Your task to perform on an android device: uninstall "NewsBreak: Local News & Alerts" Image 0: 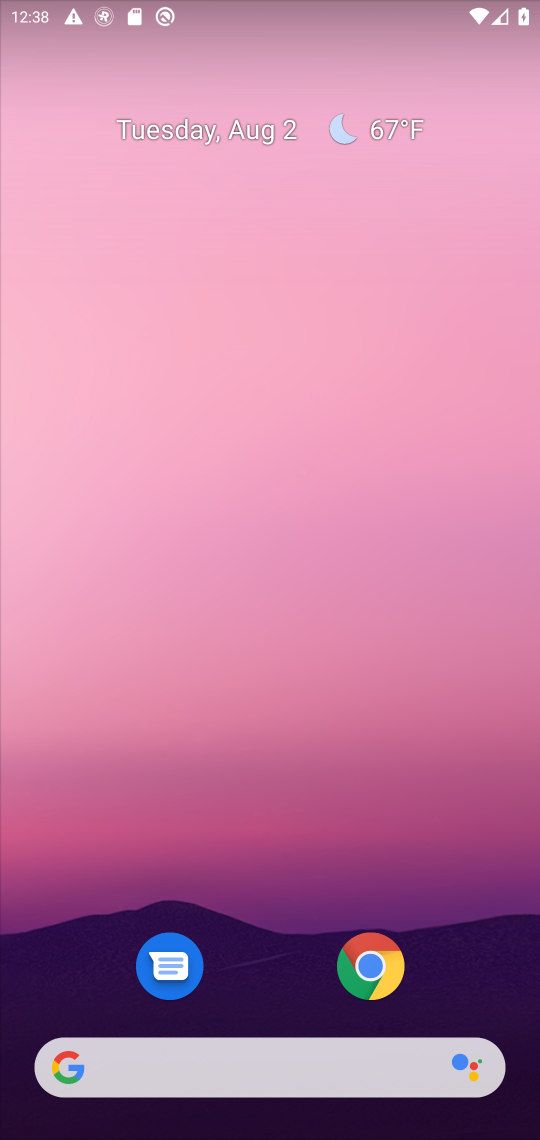
Step 0: press home button
Your task to perform on an android device: uninstall "NewsBreak: Local News & Alerts" Image 1: 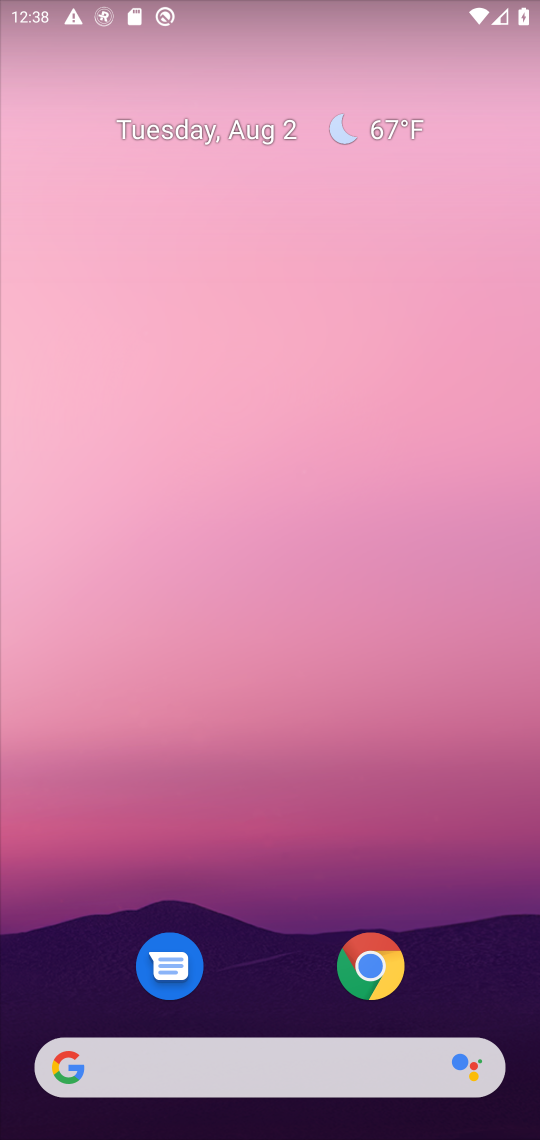
Step 1: drag from (265, 679) to (287, 84)
Your task to perform on an android device: uninstall "NewsBreak: Local News & Alerts" Image 2: 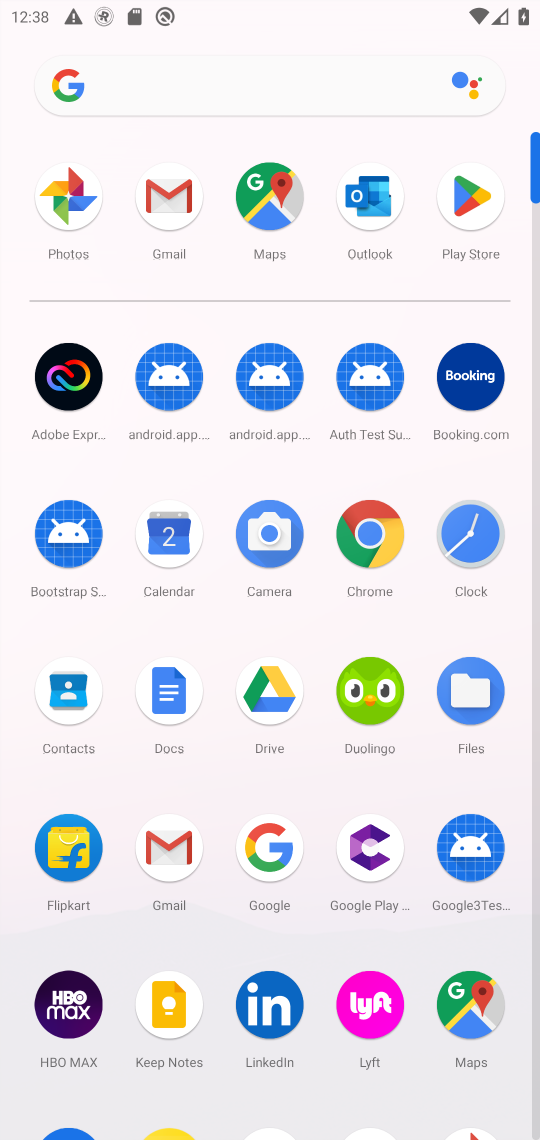
Step 2: click (475, 199)
Your task to perform on an android device: uninstall "NewsBreak: Local News & Alerts" Image 3: 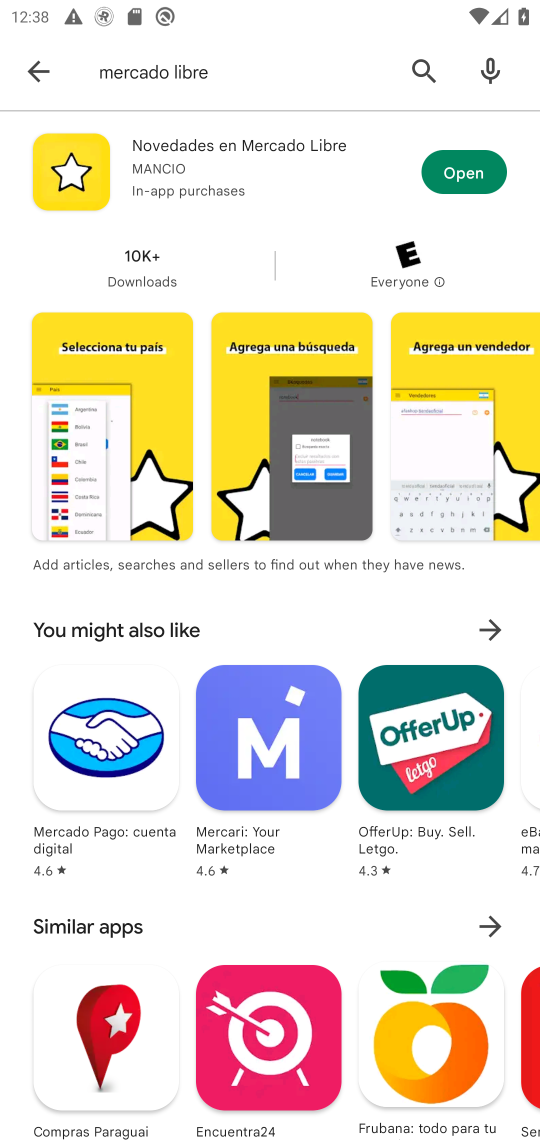
Step 3: click (418, 57)
Your task to perform on an android device: uninstall "NewsBreak: Local News & Alerts" Image 4: 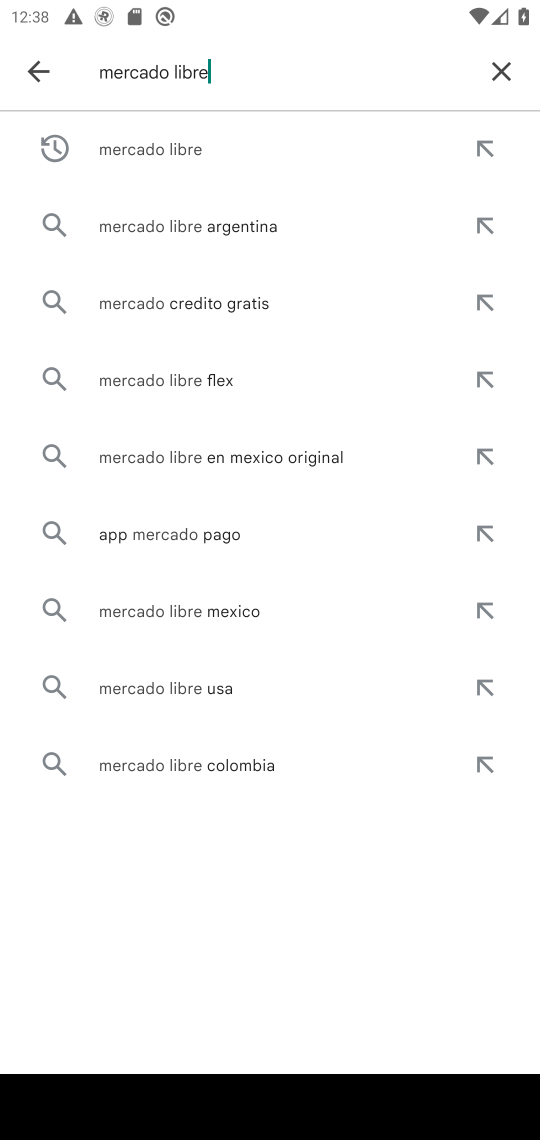
Step 4: click (490, 81)
Your task to perform on an android device: uninstall "NewsBreak: Local News & Alerts" Image 5: 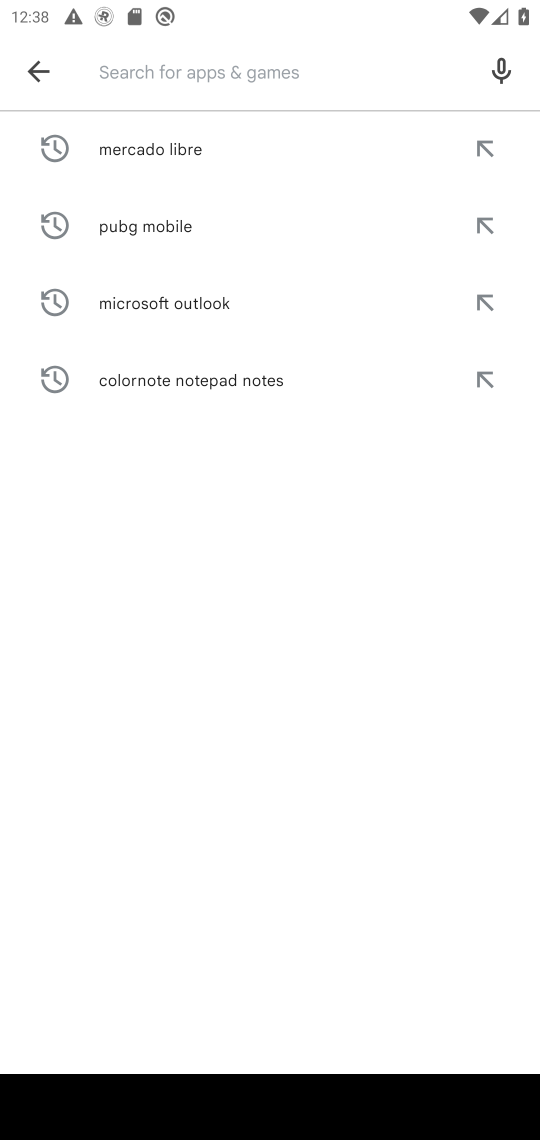
Step 5: click (369, 76)
Your task to perform on an android device: uninstall "NewsBreak: Local News & Alerts" Image 6: 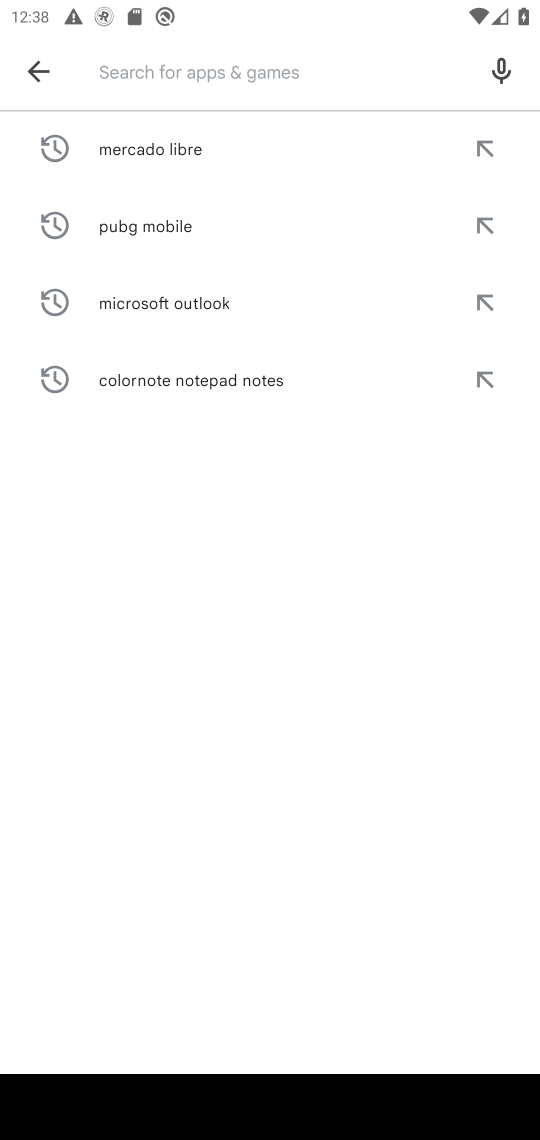
Step 6: type "NewsBreak: Local News & Alerts"
Your task to perform on an android device: uninstall "NewsBreak: Local News & Alerts" Image 7: 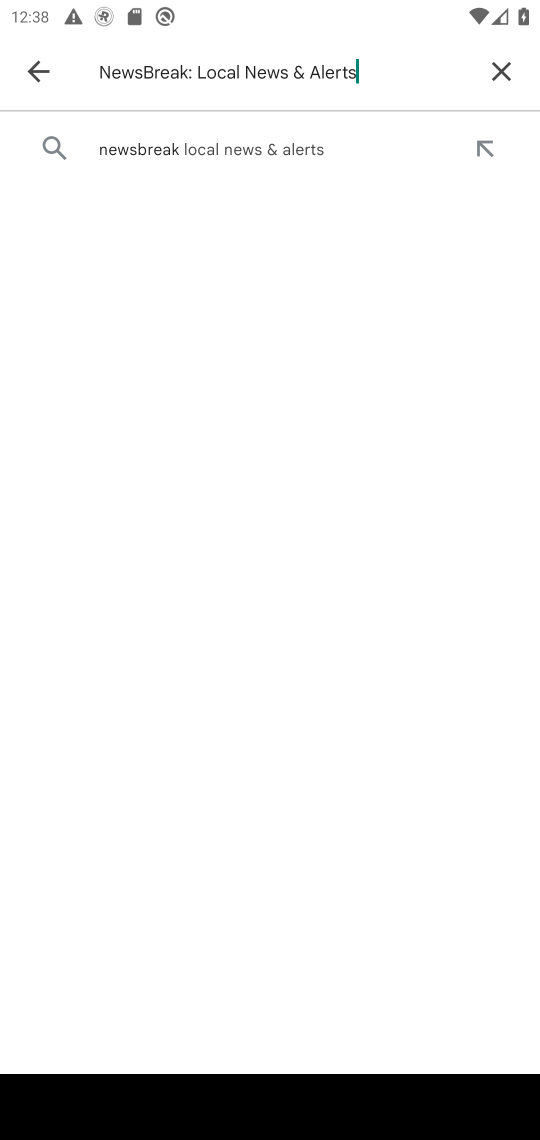
Step 7: click (274, 149)
Your task to perform on an android device: uninstall "NewsBreak: Local News & Alerts" Image 8: 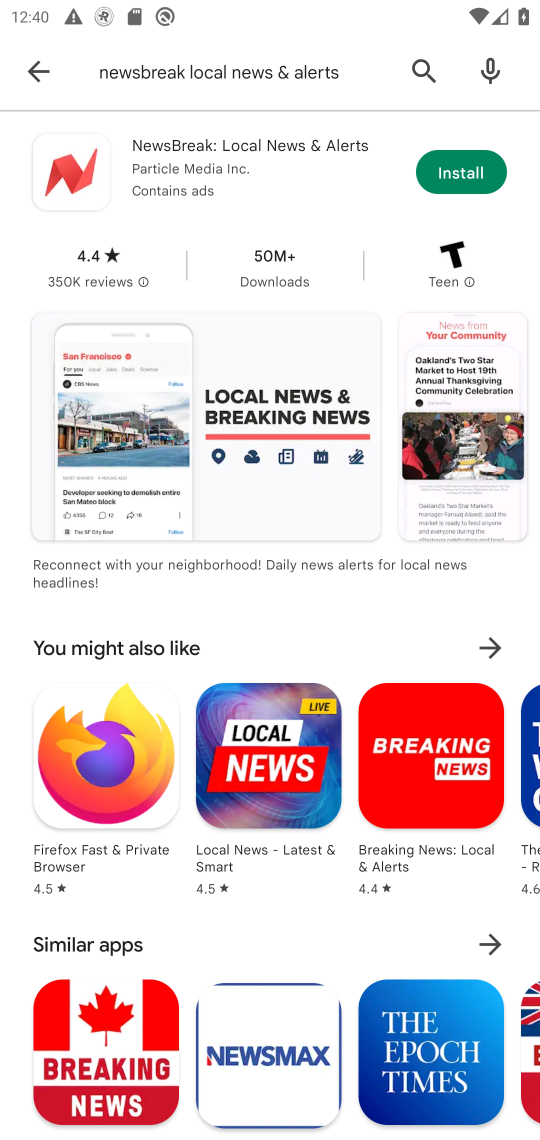
Step 8: task complete